Your task to perform on an android device: Do I have any events tomorrow? Image 0: 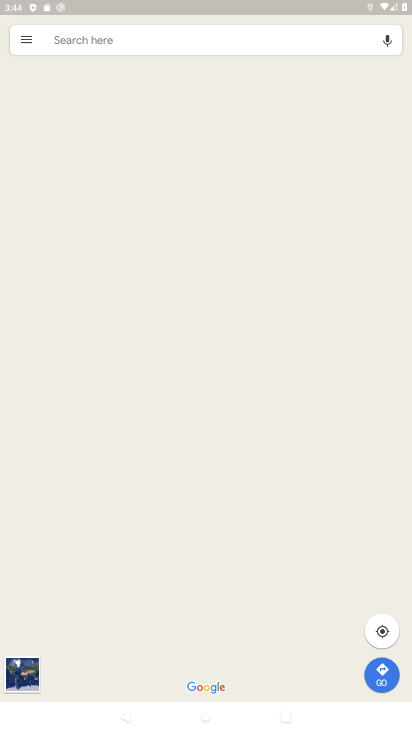
Step 0: drag from (196, 660) to (157, 476)
Your task to perform on an android device: Do I have any events tomorrow? Image 1: 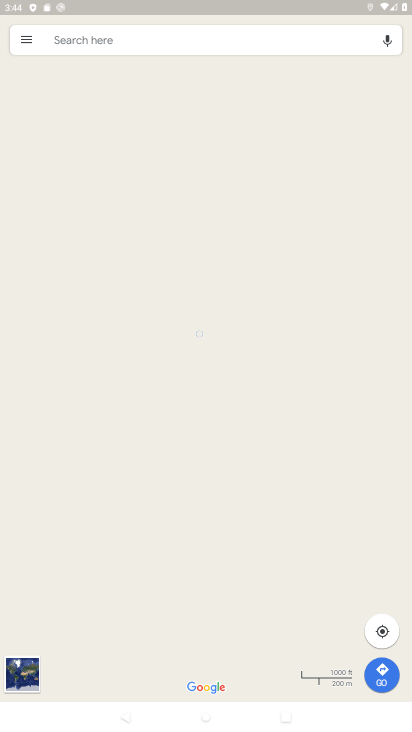
Step 1: press home button
Your task to perform on an android device: Do I have any events tomorrow? Image 2: 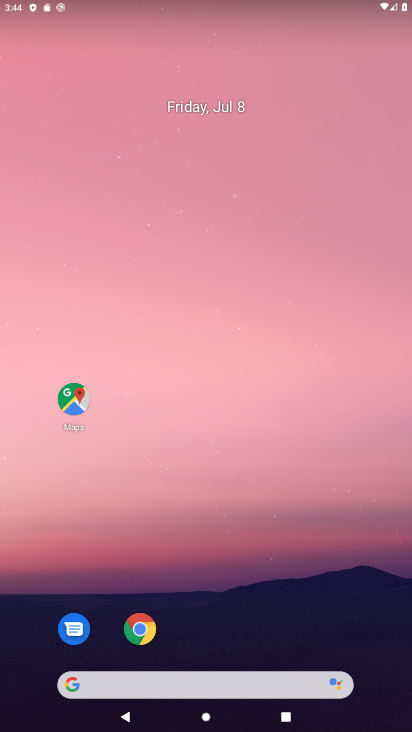
Step 2: drag from (215, 662) to (114, 87)
Your task to perform on an android device: Do I have any events tomorrow? Image 3: 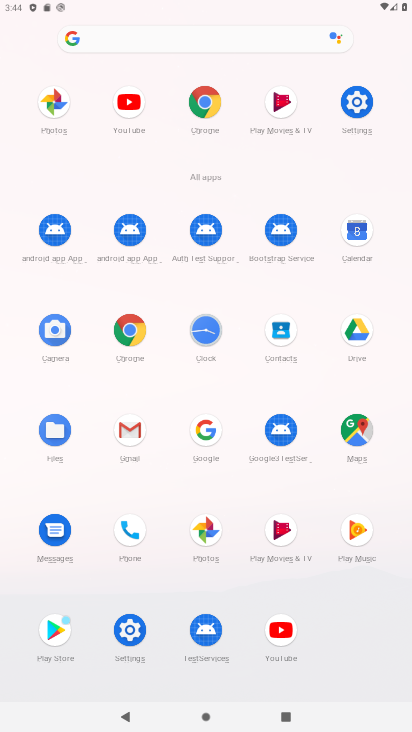
Step 3: click (356, 232)
Your task to perform on an android device: Do I have any events tomorrow? Image 4: 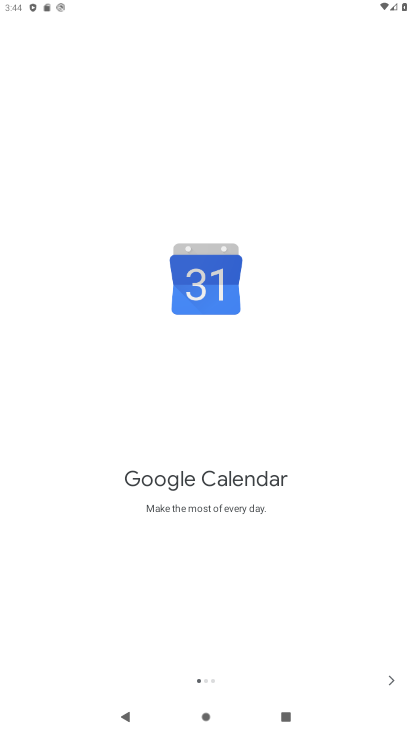
Step 4: click (378, 677)
Your task to perform on an android device: Do I have any events tomorrow? Image 5: 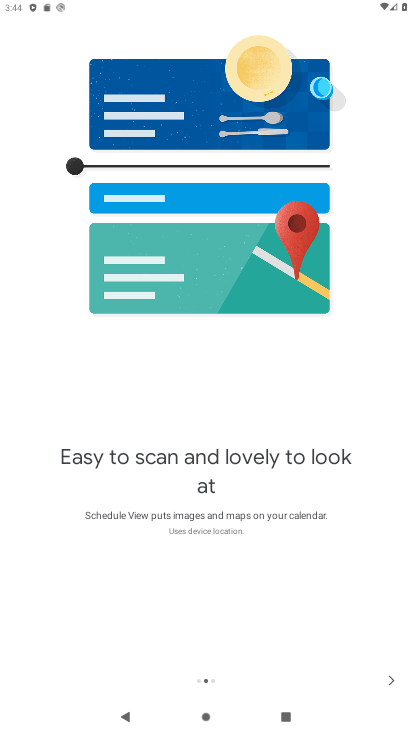
Step 5: click (378, 677)
Your task to perform on an android device: Do I have any events tomorrow? Image 6: 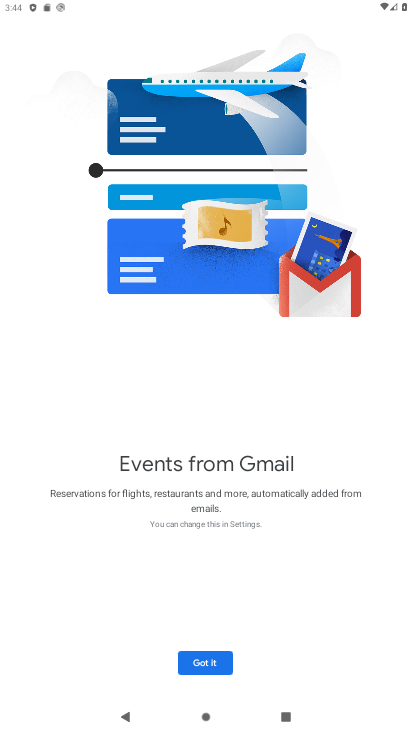
Step 6: click (378, 677)
Your task to perform on an android device: Do I have any events tomorrow? Image 7: 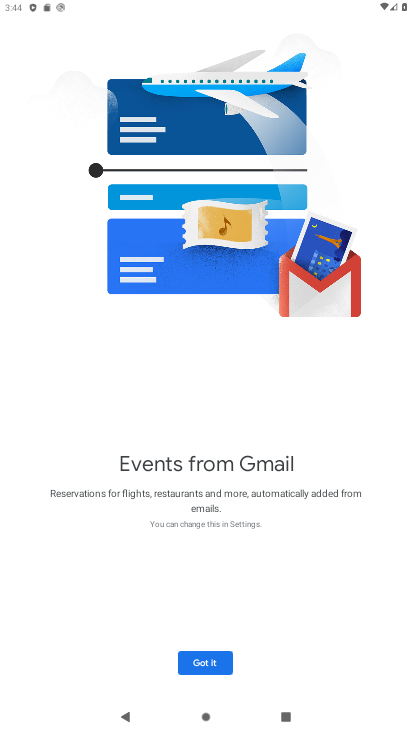
Step 7: click (226, 662)
Your task to perform on an android device: Do I have any events tomorrow? Image 8: 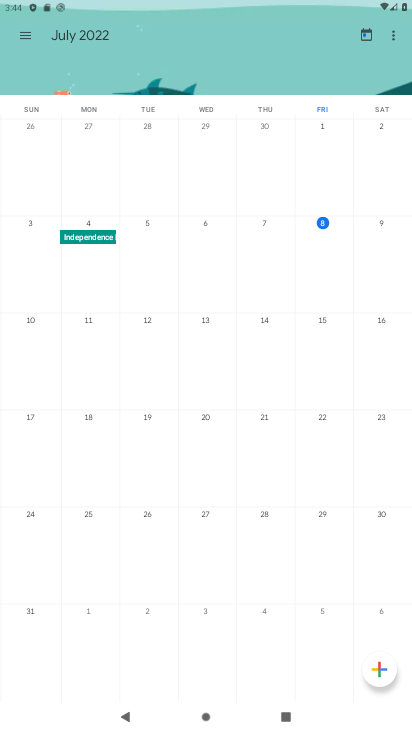
Step 8: click (382, 216)
Your task to perform on an android device: Do I have any events tomorrow? Image 9: 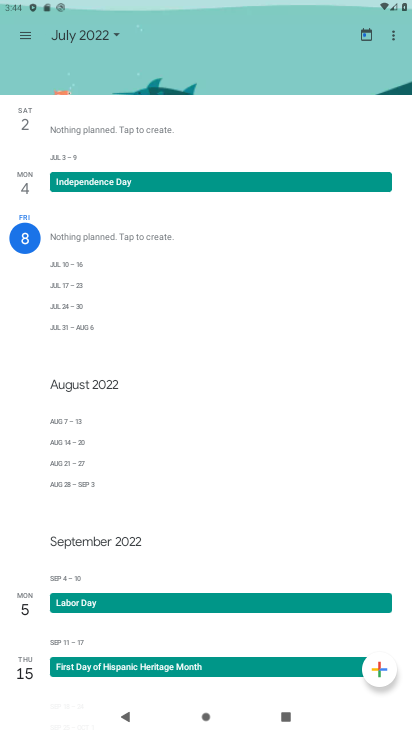
Step 9: click (23, 232)
Your task to perform on an android device: Do I have any events tomorrow? Image 10: 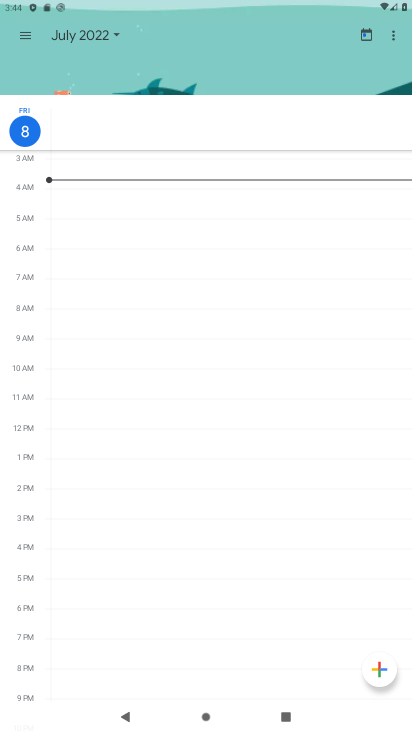
Step 10: click (25, 25)
Your task to perform on an android device: Do I have any events tomorrow? Image 11: 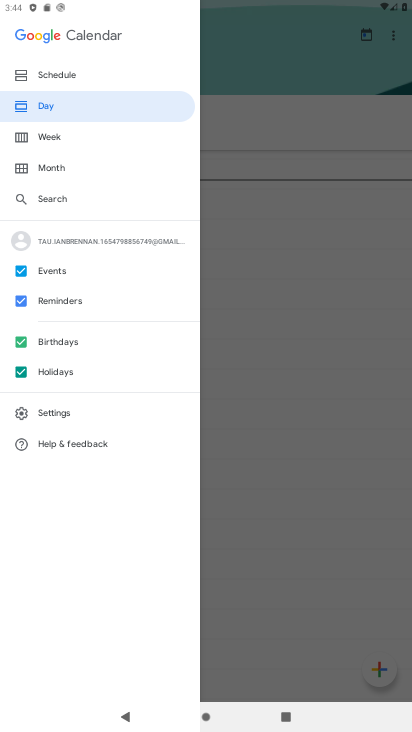
Step 11: click (71, 136)
Your task to perform on an android device: Do I have any events tomorrow? Image 12: 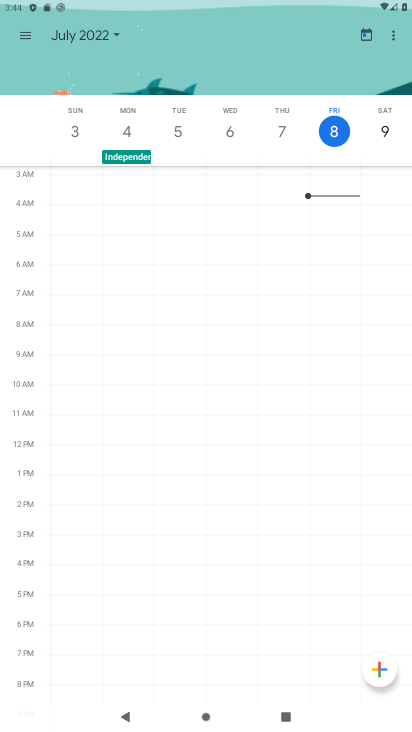
Step 12: click (386, 136)
Your task to perform on an android device: Do I have any events tomorrow? Image 13: 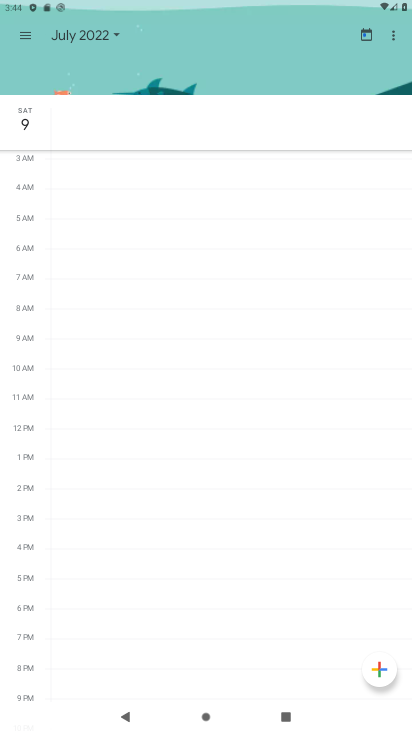
Step 13: task complete